Your task to perform on an android device: What's the weather? Image 0: 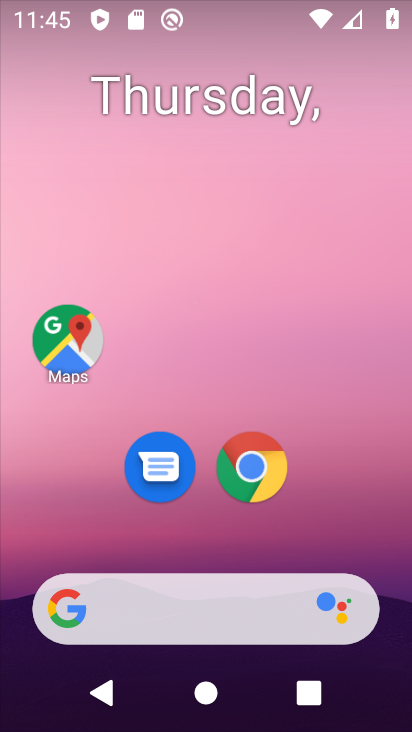
Step 0: click (109, 610)
Your task to perform on an android device: What's the weather? Image 1: 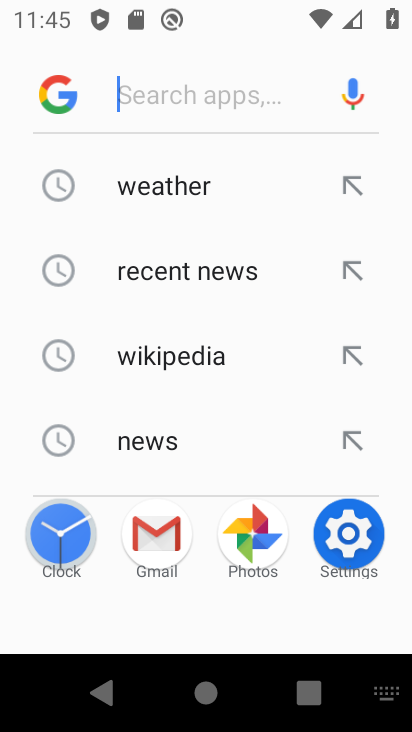
Step 1: click (140, 190)
Your task to perform on an android device: What's the weather? Image 2: 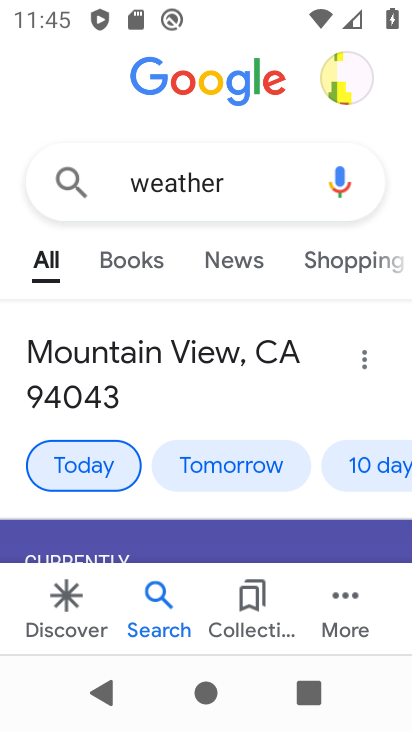
Step 2: task complete